Your task to perform on an android device: Open sound settings Image 0: 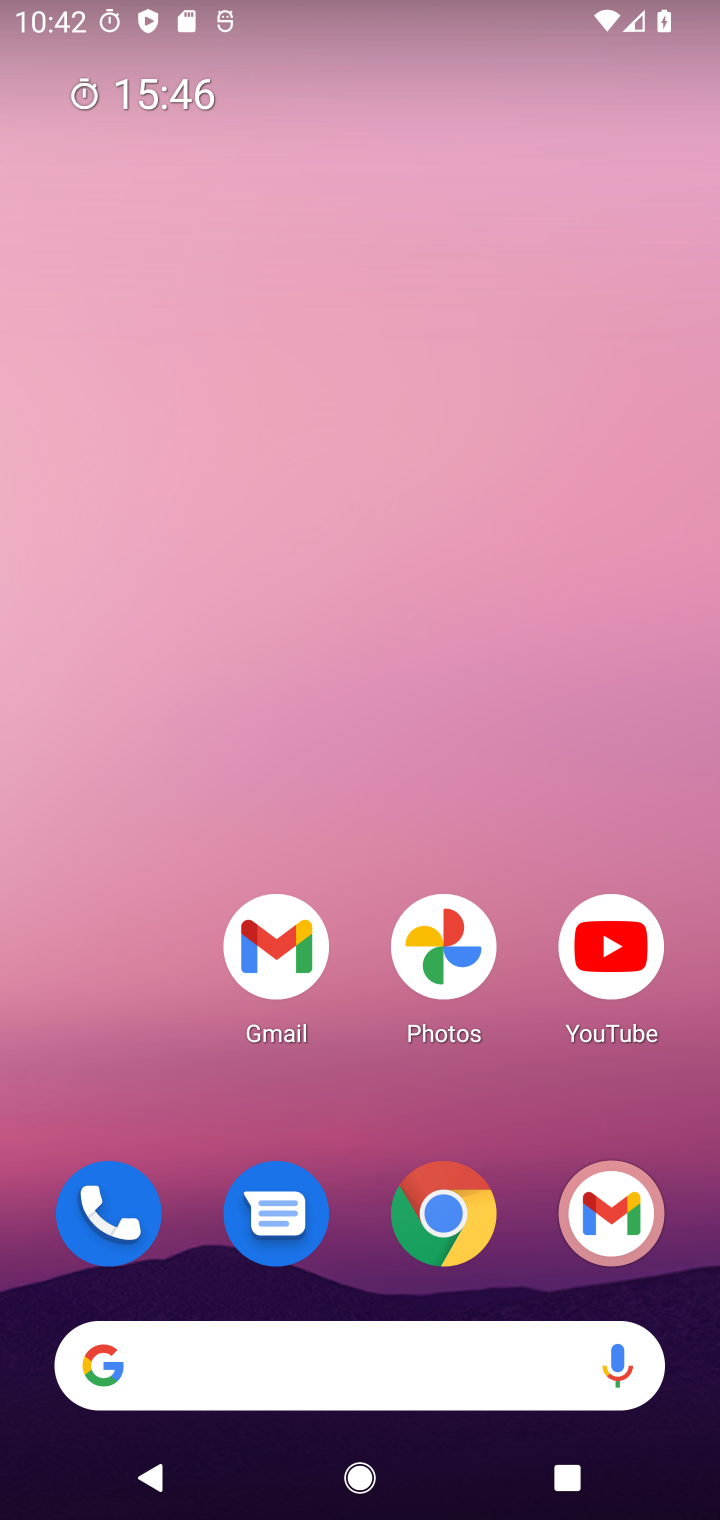
Step 0: drag from (390, 1150) to (349, 305)
Your task to perform on an android device: Open sound settings Image 1: 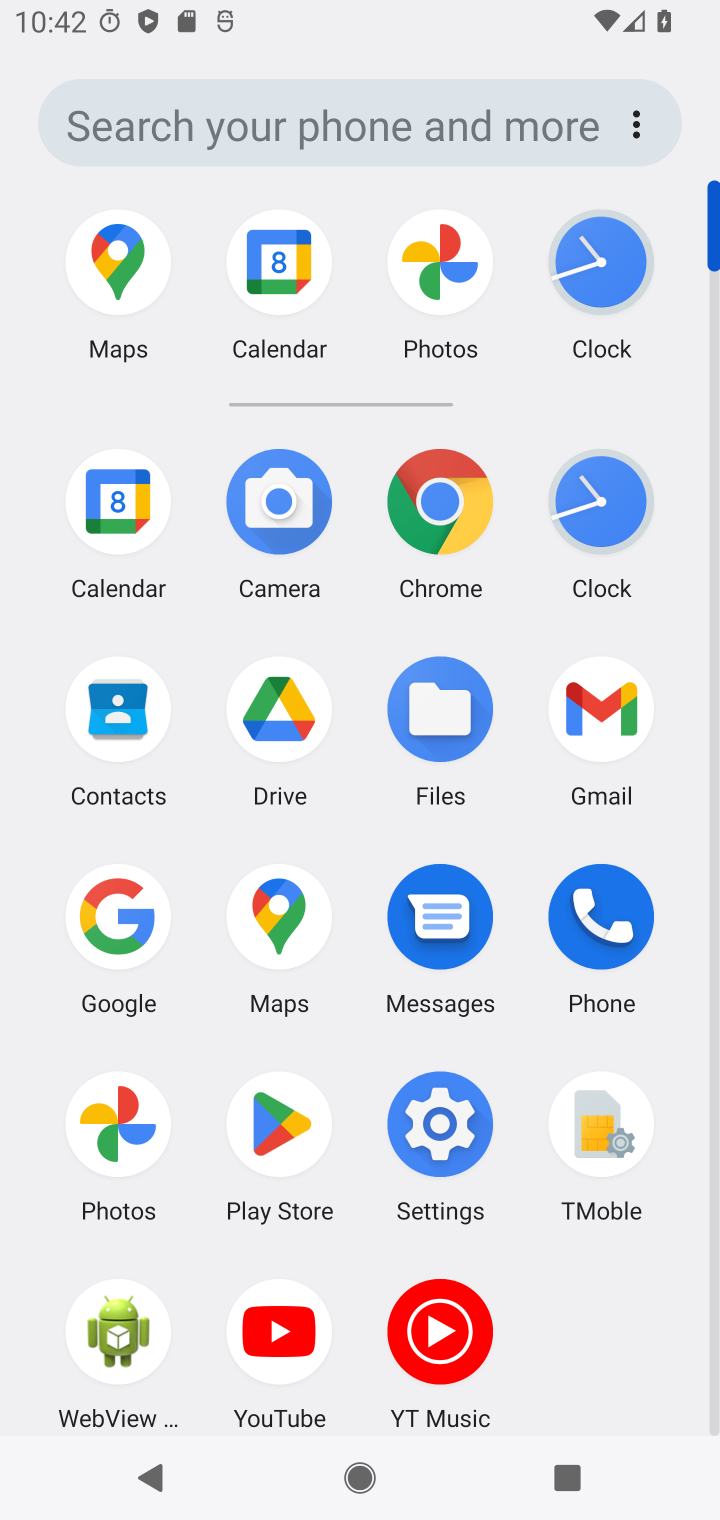
Step 1: click (425, 1145)
Your task to perform on an android device: Open sound settings Image 2: 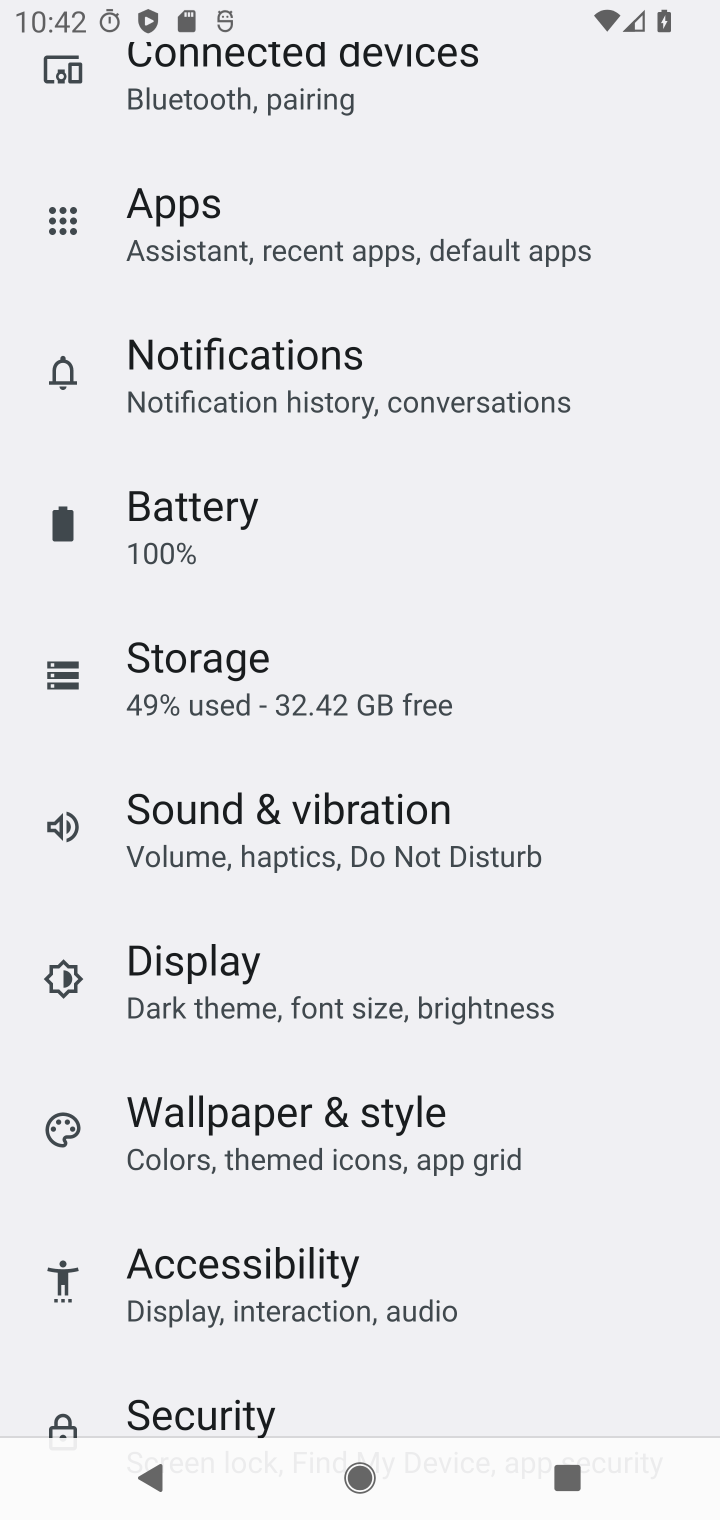
Step 2: click (224, 886)
Your task to perform on an android device: Open sound settings Image 3: 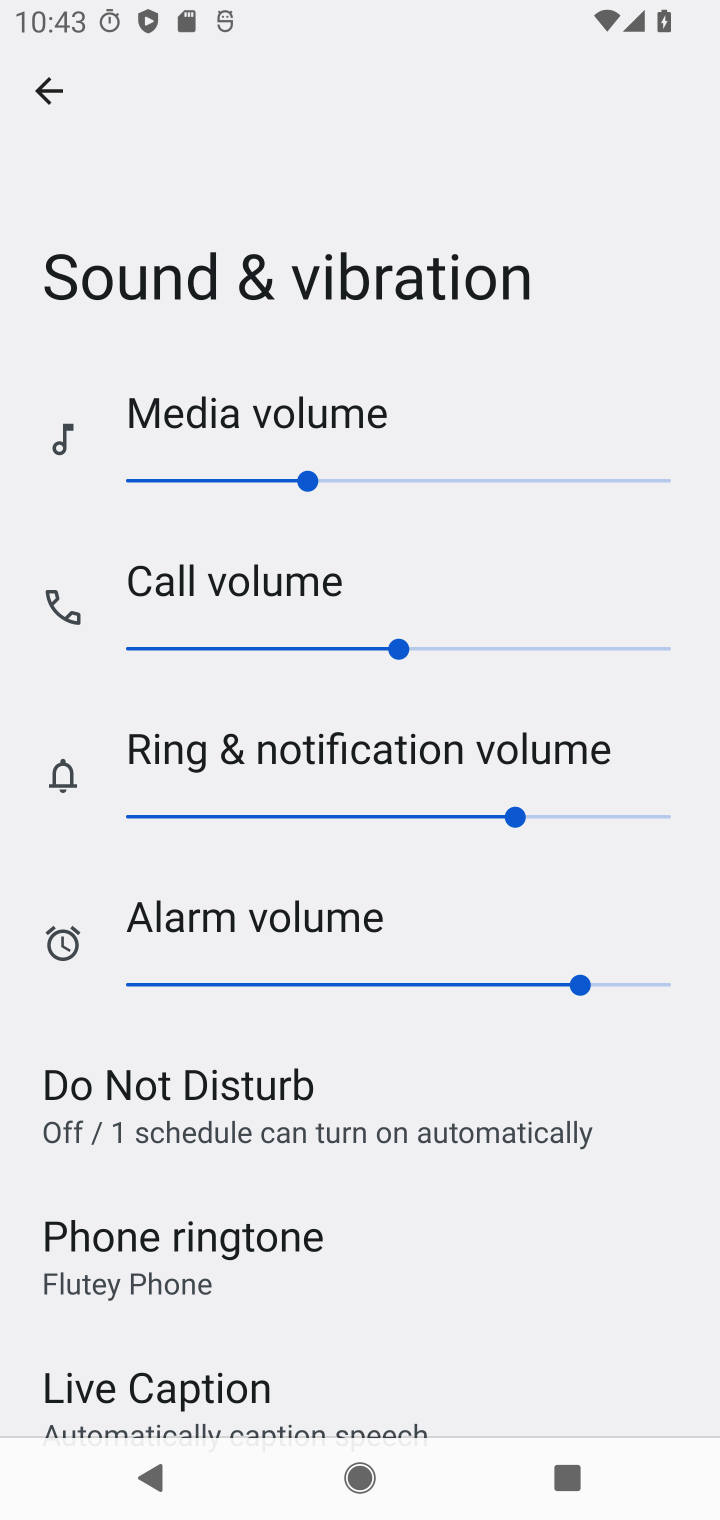
Step 3: task complete